Your task to perform on an android device: set the timer Image 0: 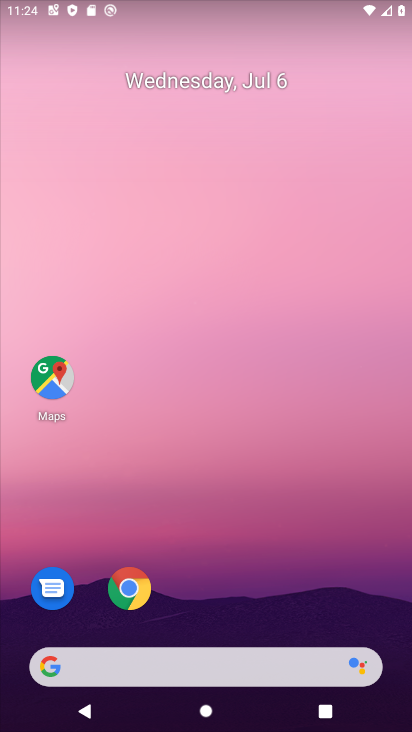
Step 0: drag from (254, 623) to (286, 201)
Your task to perform on an android device: set the timer Image 1: 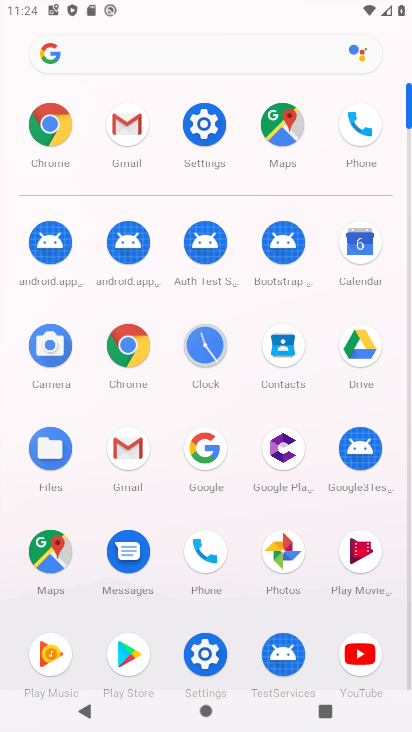
Step 1: click (195, 335)
Your task to perform on an android device: set the timer Image 2: 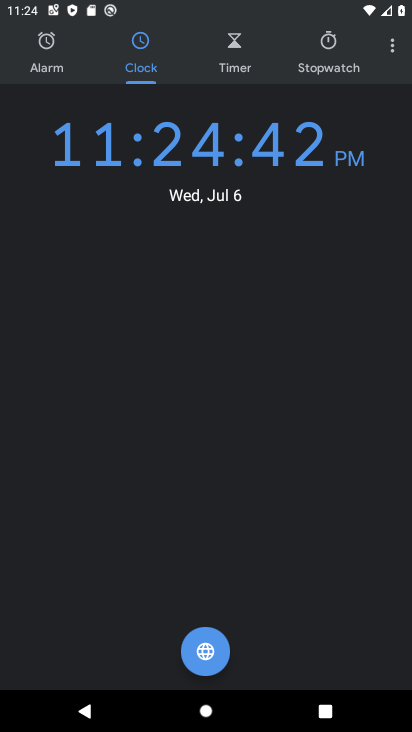
Step 2: click (217, 47)
Your task to perform on an android device: set the timer Image 3: 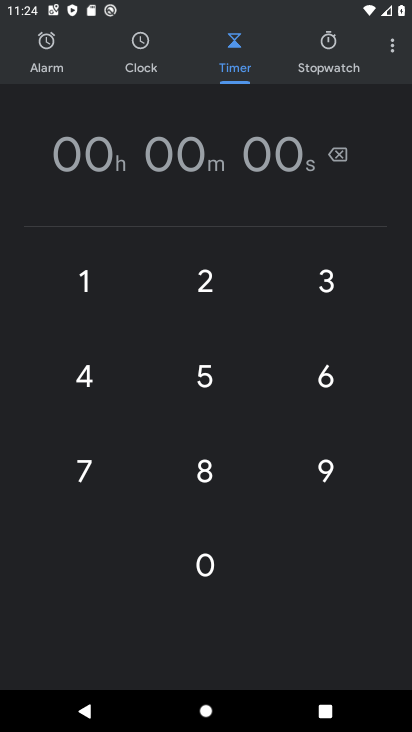
Step 3: click (81, 157)
Your task to perform on an android device: set the timer Image 4: 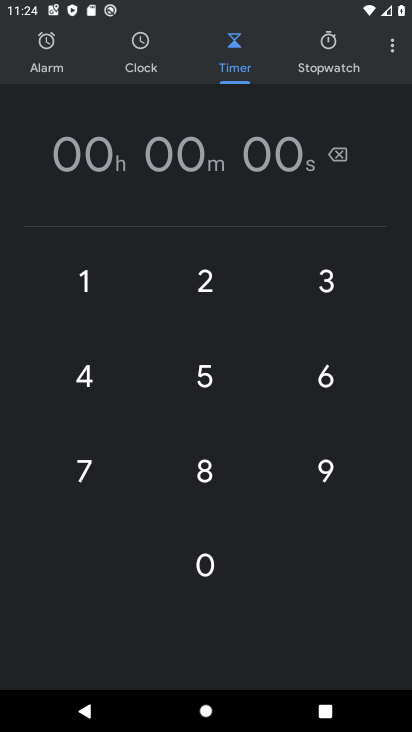
Step 4: click (96, 160)
Your task to perform on an android device: set the timer Image 5: 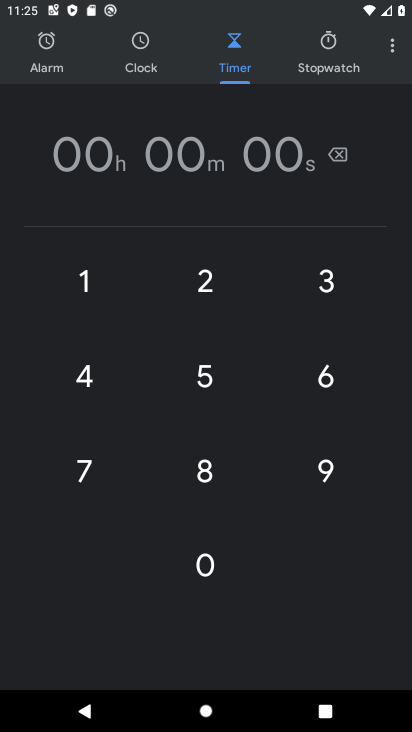
Step 5: type "077787 "
Your task to perform on an android device: set the timer Image 6: 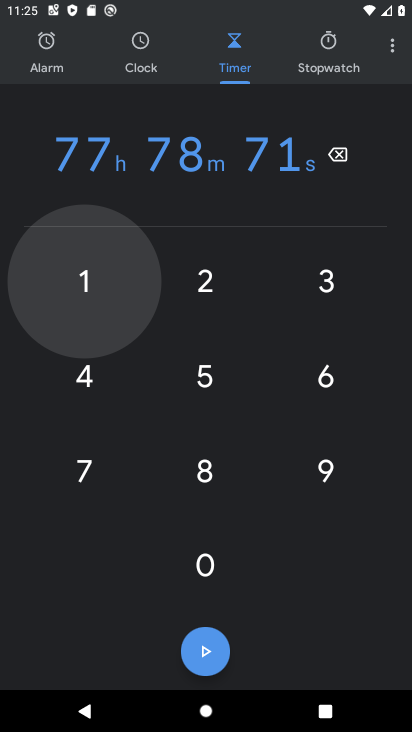
Step 6: click (217, 658)
Your task to perform on an android device: set the timer Image 7: 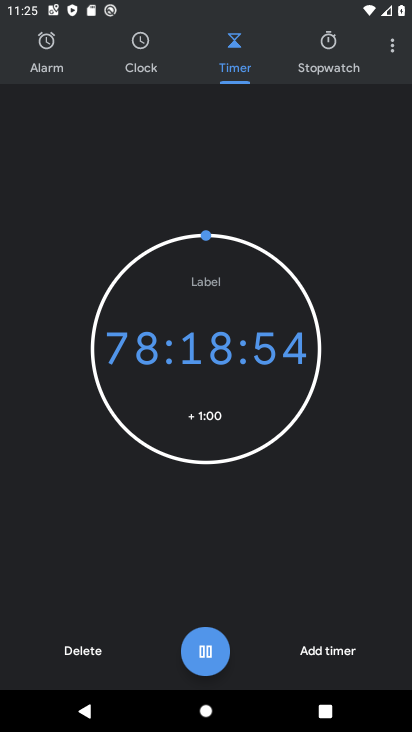
Step 7: task complete